Your task to perform on an android device: change notifications settings Image 0: 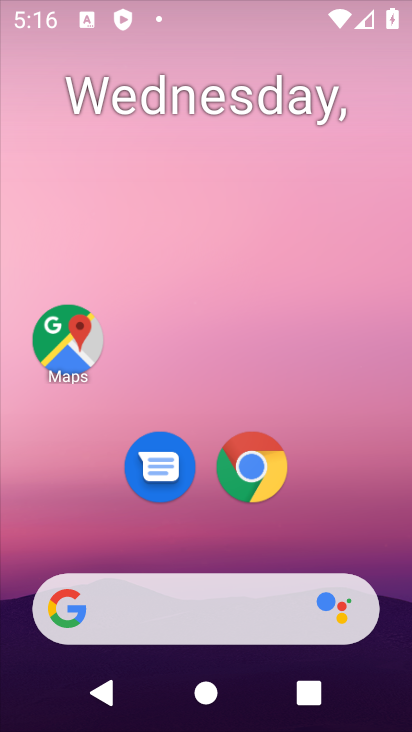
Step 0: drag from (319, 556) to (206, 12)
Your task to perform on an android device: change notifications settings Image 1: 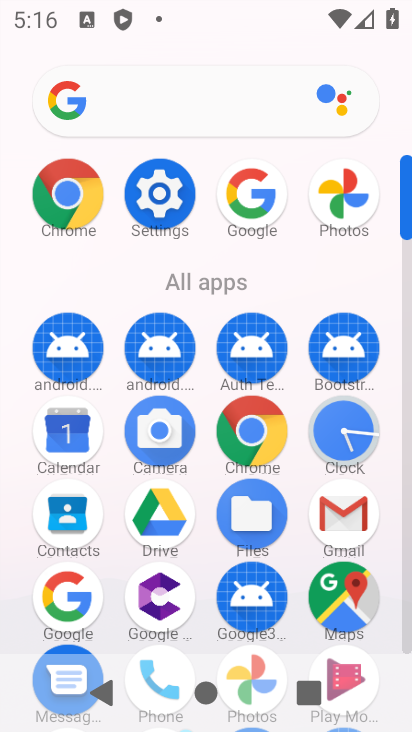
Step 1: click (168, 192)
Your task to perform on an android device: change notifications settings Image 2: 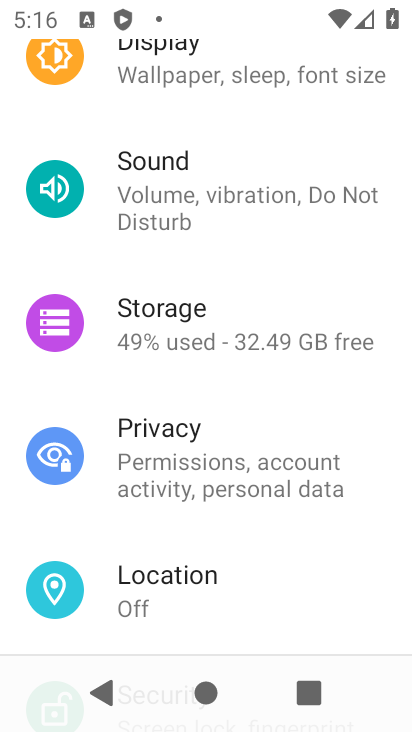
Step 2: drag from (274, 164) to (228, 584)
Your task to perform on an android device: change notifications settings Image 3: 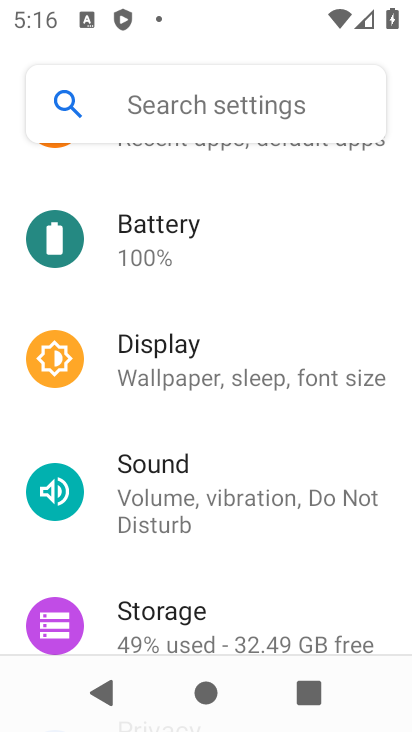
Step 3: drag from (270, 199) to (249, 577)
Your task to perform on an android device: change notifications settings Image 4: 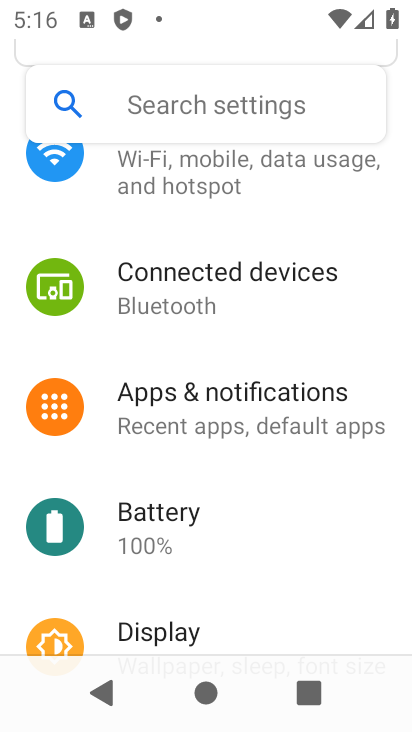
Step 4: click (221, 406)
Your task to perform on an android device: change notifications settings Image 5: 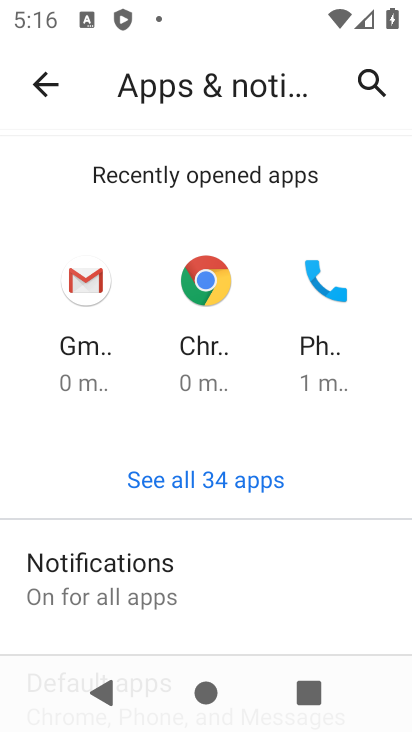
Step 5: drag from (271, 564) to (242, 125)
Your task to perform on an android device: change notifications settings Image 6: 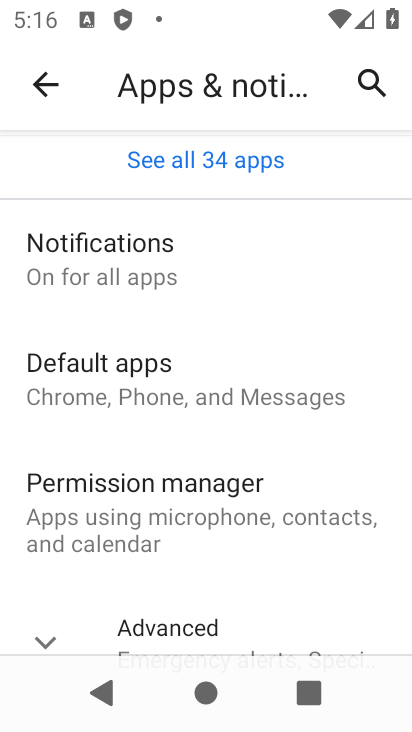
Step 6: click (246, 236)
Your task to perform on an android device: change notifications settings Image 7: 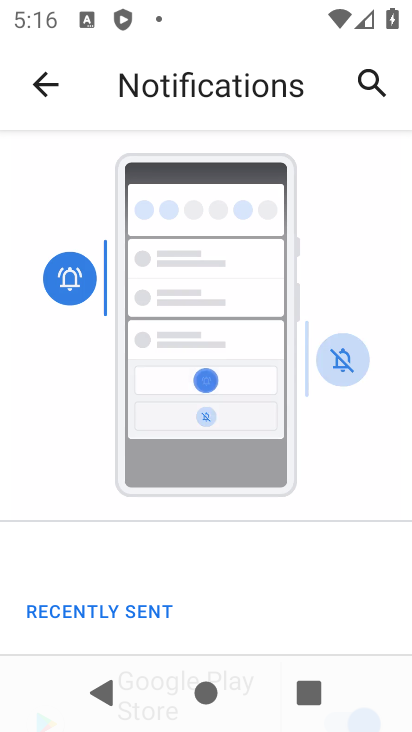
Step 7: drag from (236, 570) to (220, 132)
Your task to perform on an android device: change notifications settings Image 8: 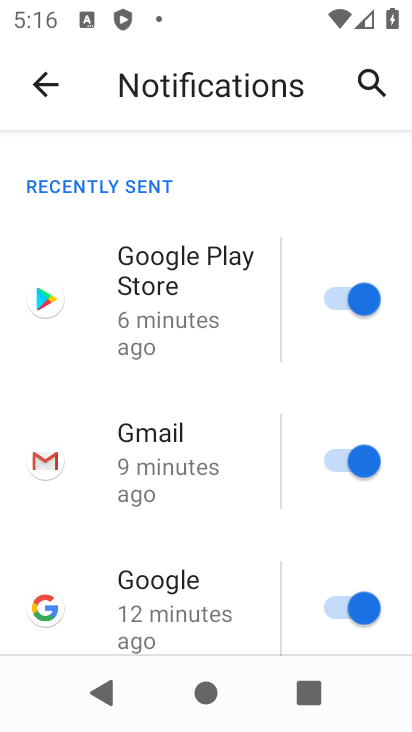
Step 8: drag from (214, 546) to (232, 209)
Your task to perform on an android device: change notifications settings Image 9: 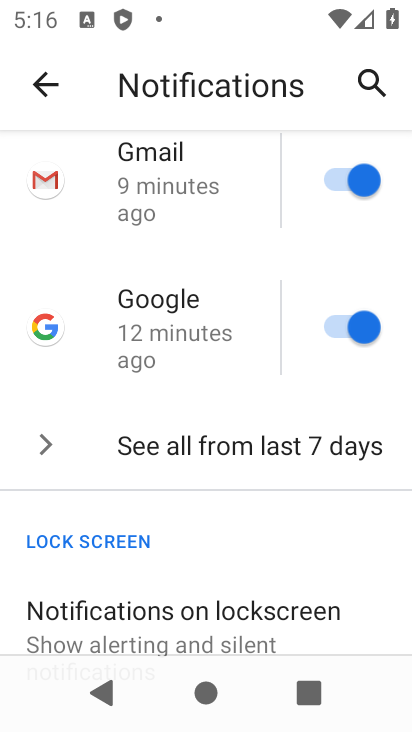
Step 9: drag from (234, 216) to (243, 518)
Your task to perform on an android device: change notifications settings Image 10: 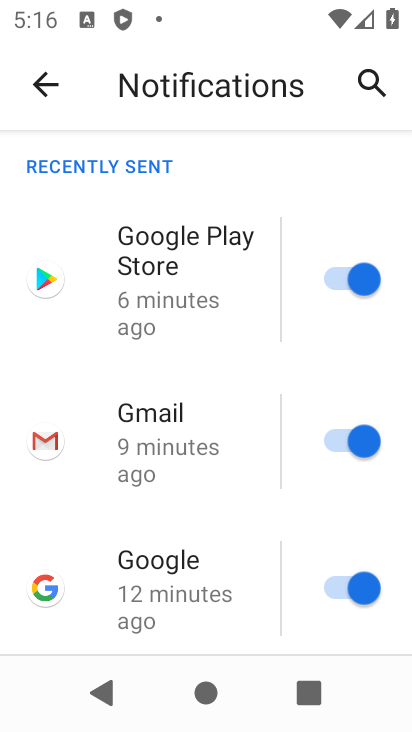
Step 10: click (354, 283)
Your task to perform on an android device: change notifications settings Image 11: 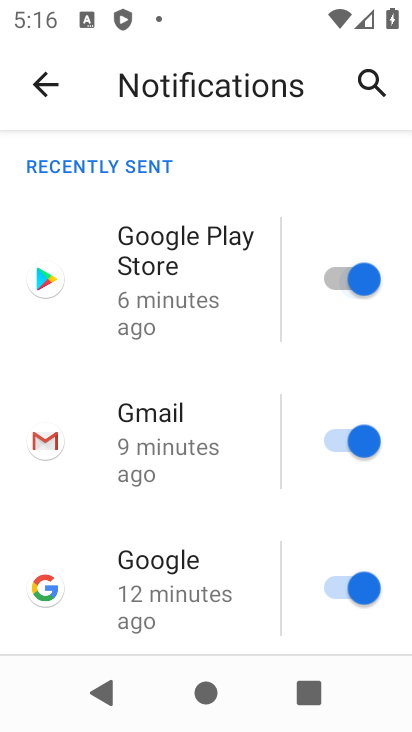
Step 11: click (342, 445)
Your task to perform on an android device: change notifications settings Image 12: 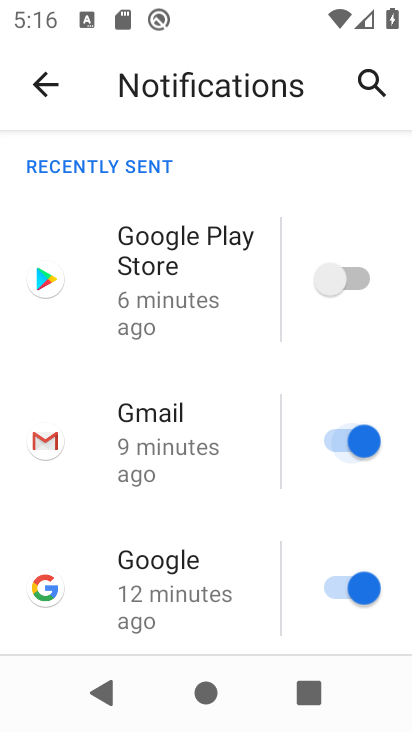
Step 12: click (357, 562)
Your task to perform on an android device: change notifications settings Image 13: 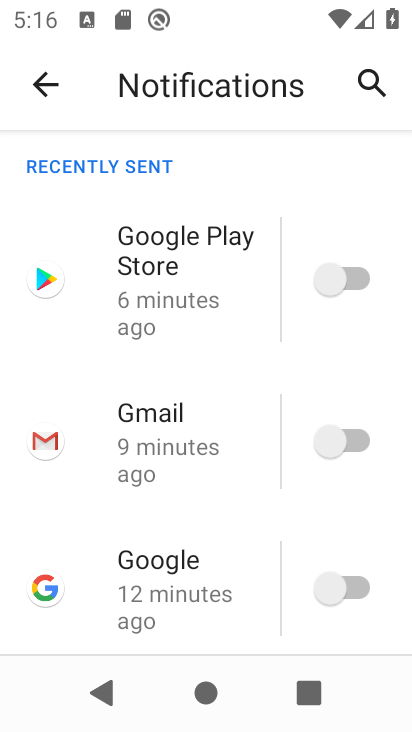
Step 13: task complete